Your task to perform on an android device: turn notification dots off Image 0: 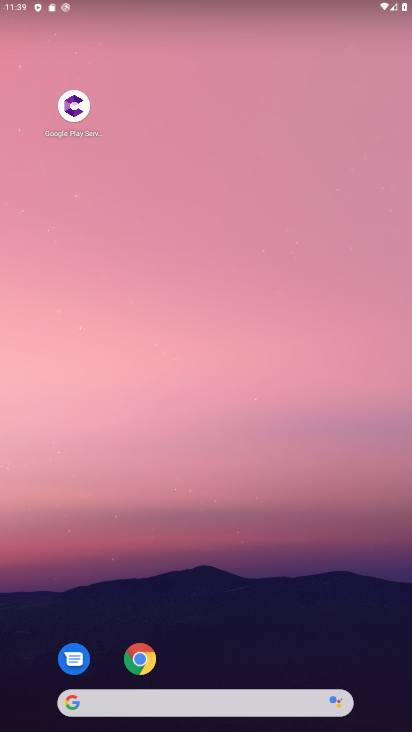
Step 0: drag from (225, 725) to (194, 256)
Your task to perform on an android device: turn notification dots off Image 1: 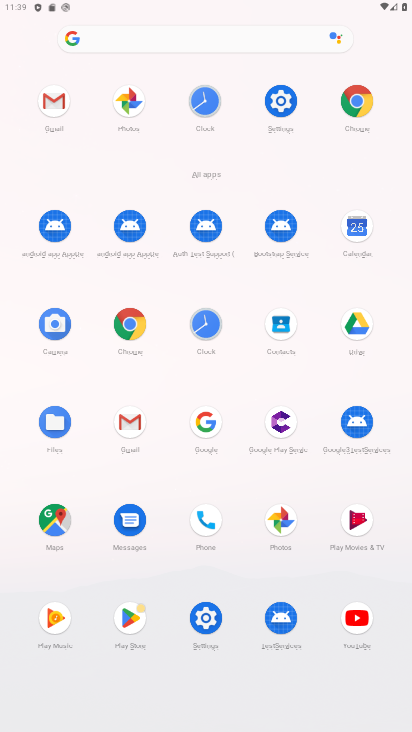
Step 1: click (275, 99)
Your task to perform on an android device: turn notification dots off Image 2: 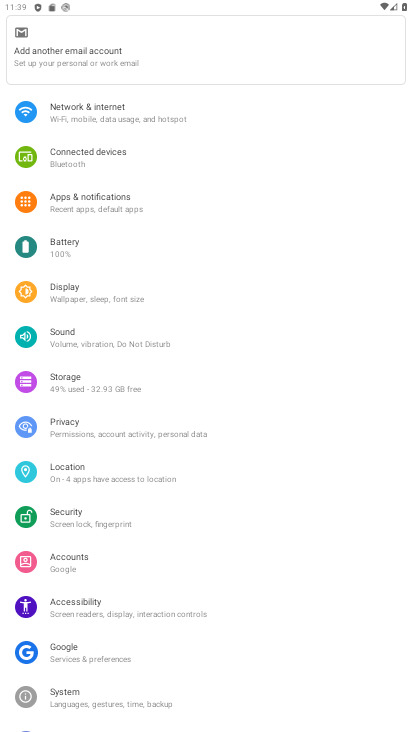
Step 2: click (83, 203)
Your task to perform on an android device: turn notification dots off Image 3: 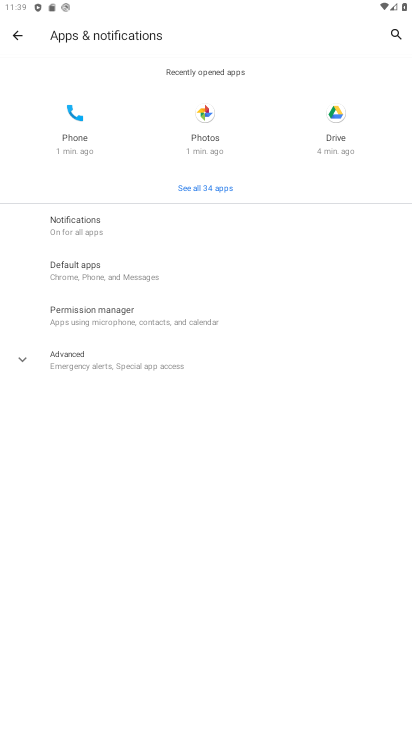
Step 3: click (84, 228)
Your task to perform on an android device: turn notification dots off Image 4: 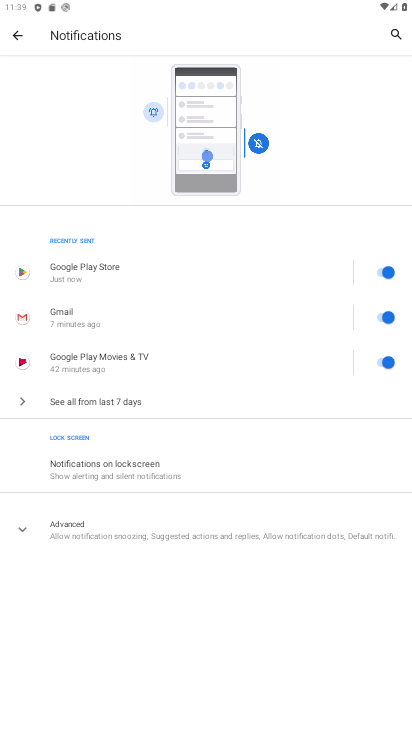
Step 4: click (249, 530)
Your task to perform on an android device: turn notification dots off Image 5: 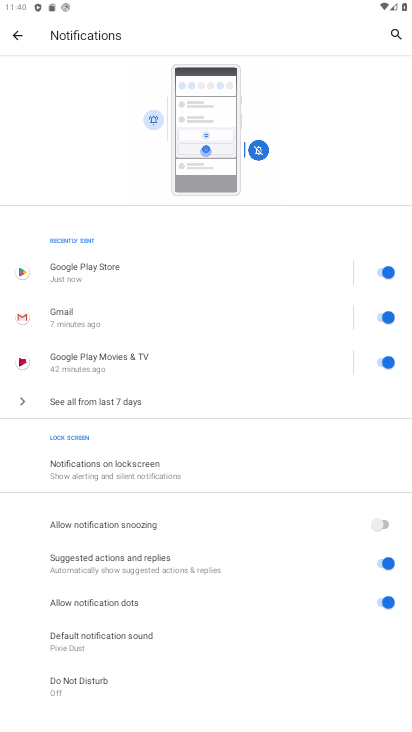
Step 5: click (391, 598)
Your task to perform on an android device: turn notification dots off Image 6: 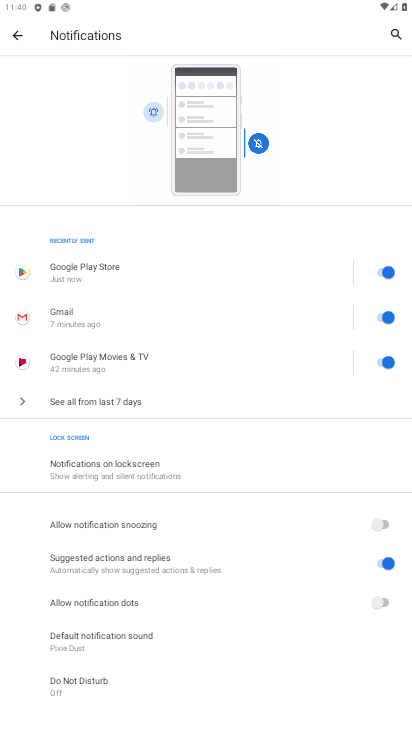
Step 6: task complete